Your task to perform on an android device: add a label to a message in the gmail app Image 0: 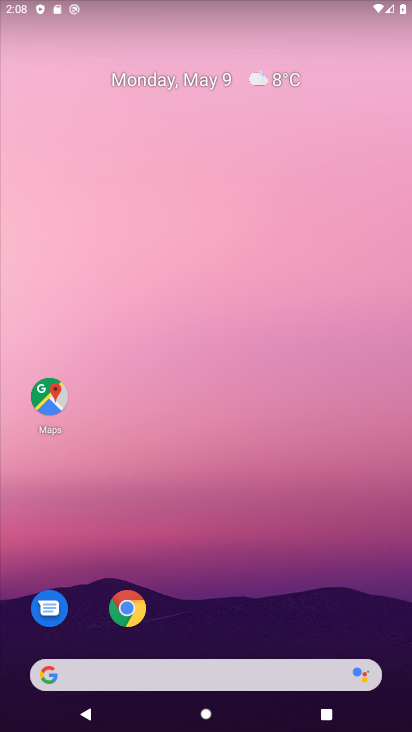
Step 0: drag from (211, 524) to (229, 266)
Your task to perform on an android device: add a label to a message in the gmail app Image 1: 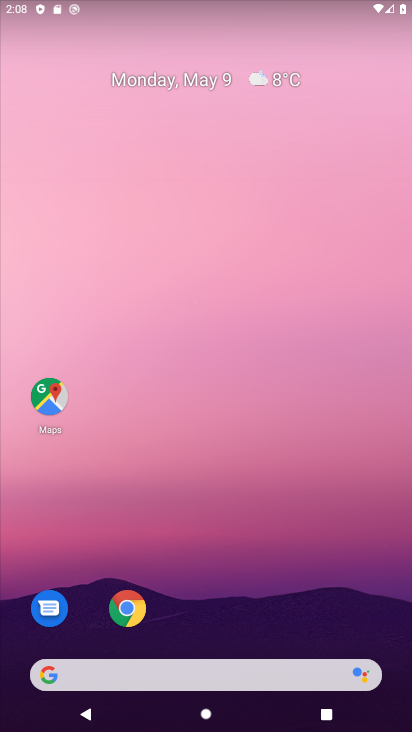
Step 1: drag from (152, 634) to (193, 360)
Your task to perform on an android device: add a label to a message in the gmail app Image 2: 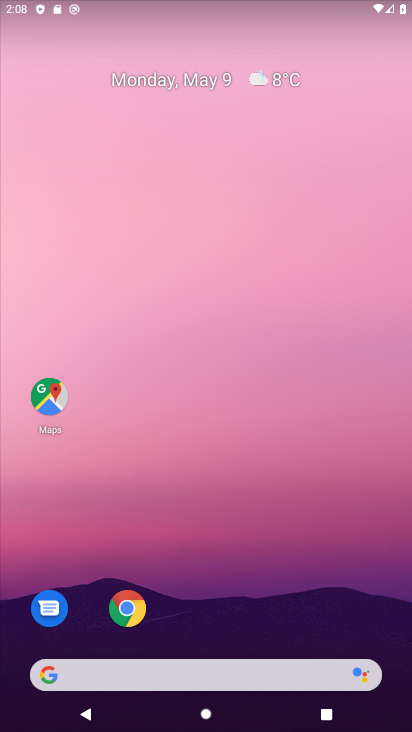
Step 2: drag from (193, 601) to (266, 249)
Your task to perform on an android device: add a label to a message in the gmail app Image 3: 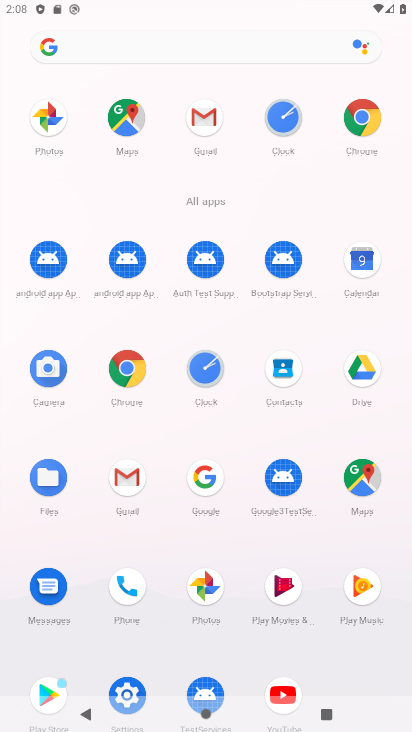
Step 3: click (202, 131)
Your task to perform on an android device: add a label to a message in the gmail app Image 4: 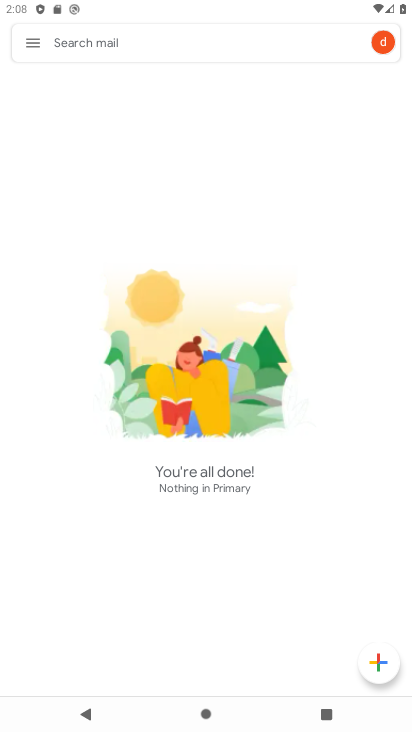
Step 4: click (37, 43)
Your task to perform on an android device: add a label to a message in the gmail app Image 5: 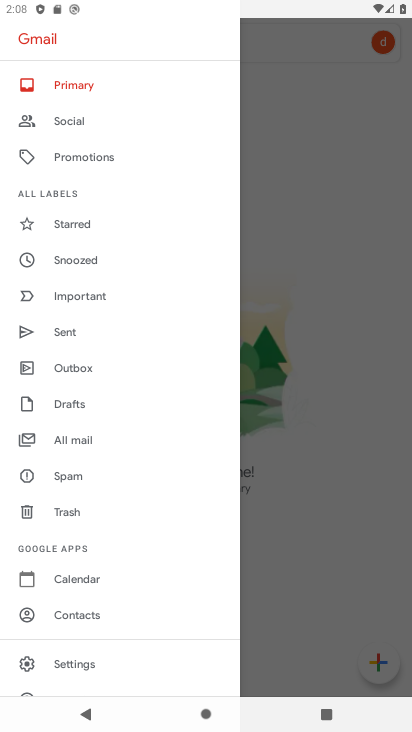
Step 5: click (78, 446)
Your task to perform on an android device: add a label to a message in the gmail app Image 6: 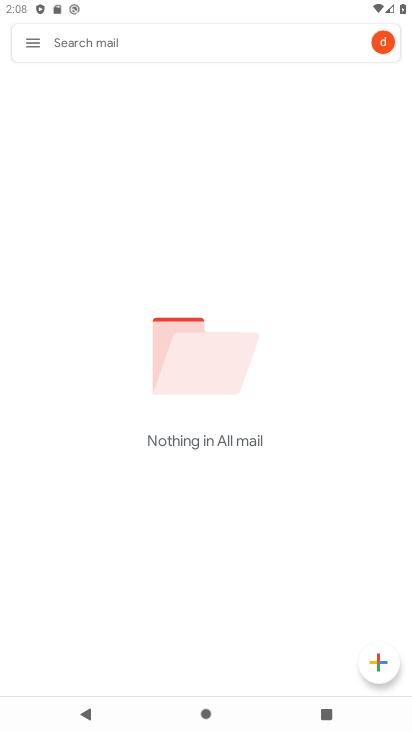
Step 6: task complete